Your task to perform on an android device: toggle location history Image 0: 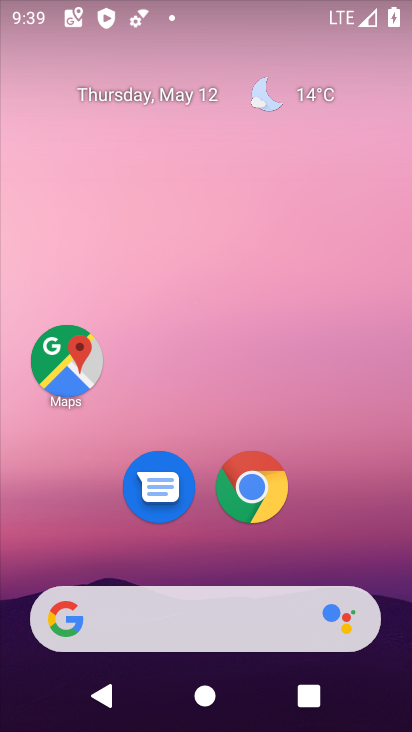
Step 0: drag from (95, 473) to (328, 37)
Your task to perform on an android device: toggle location history Image 1: 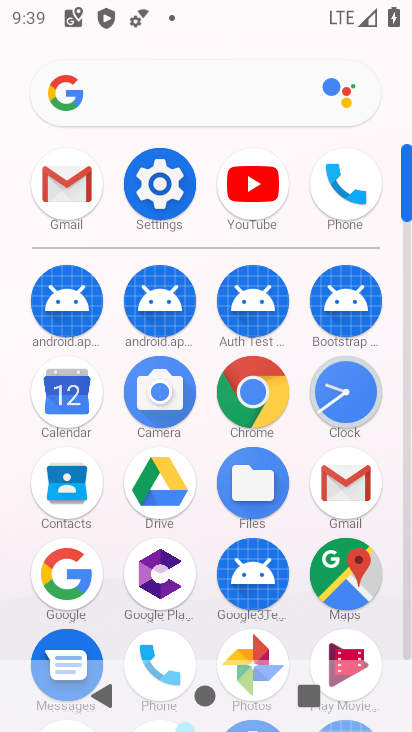
Step 1: click (162, 184)
Your task to perform on an android device: toggle location history Image 2: 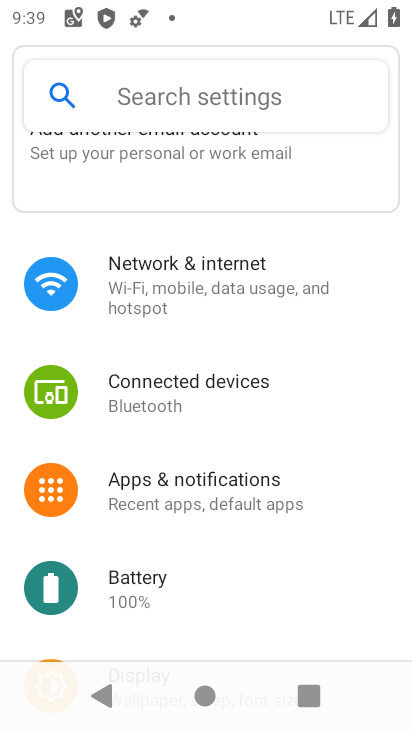
Step 2: drag from (127, 632) to (298, 240)
Your task to perform on an android device: toggle location history Image 3: 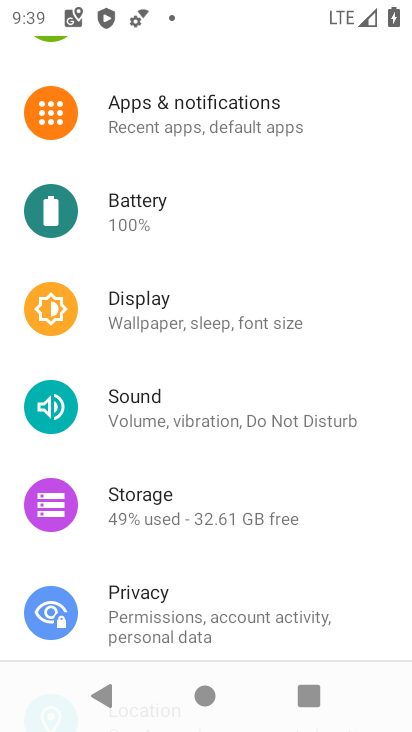
Step 3: drag from (49, 536) to (237, 155)
Your task to perform on an android device: toggle location history Image 4: 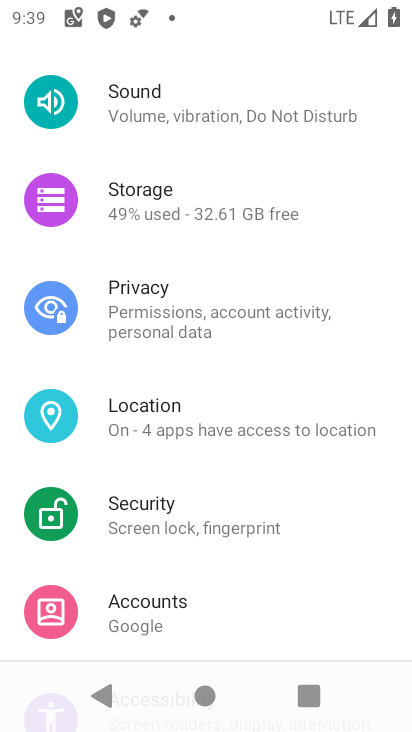
Step 4: click (112, 423)
Your task to perform on an android device: toggle location history Image 5: 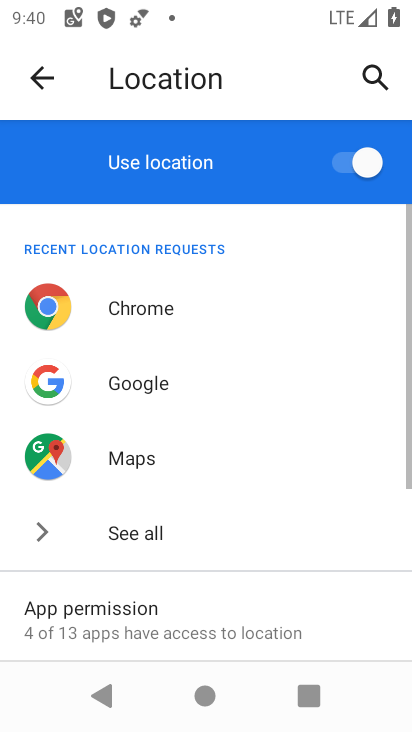
Step 5: drag from (18, 525) to (197, 180)
Your task to perform on an android device: toggle location history Image 6: 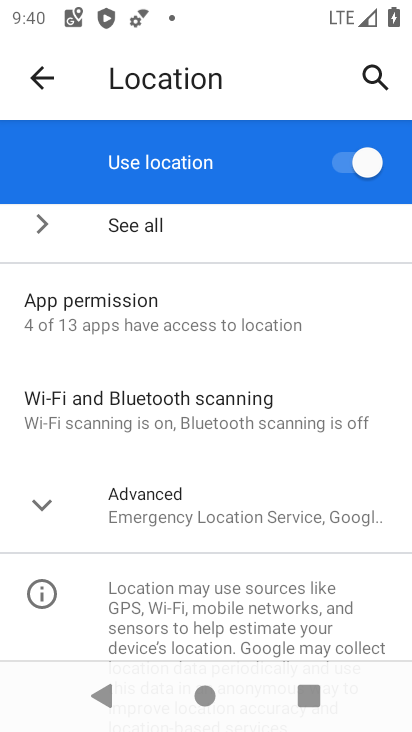
Step 6: click (142, 506)
Your task to perform on an android device: toggle location history Image 7: 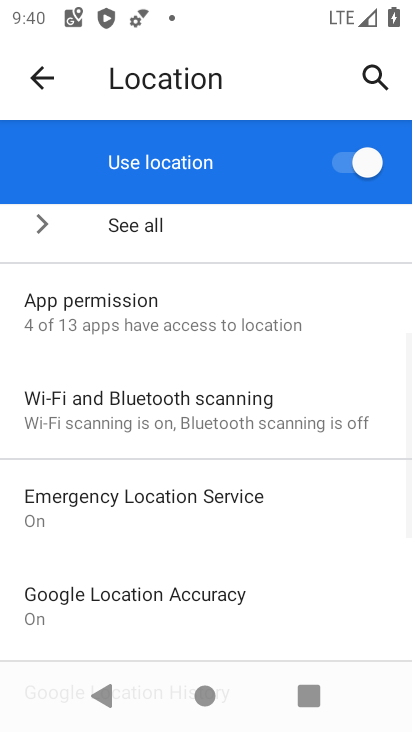
Step 7: drag from (32, 539) to (227, 272)
Your task to perform on an android device: toggle location history Image 8: 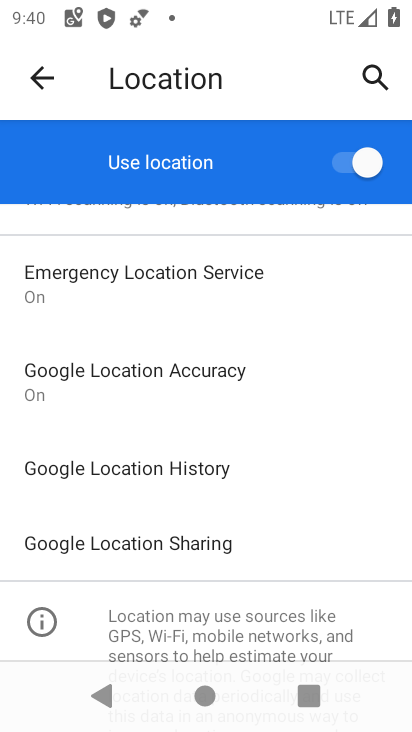
Step 8: click (144, 486)
Your task to perform on an android device: toggle location history Image 9: 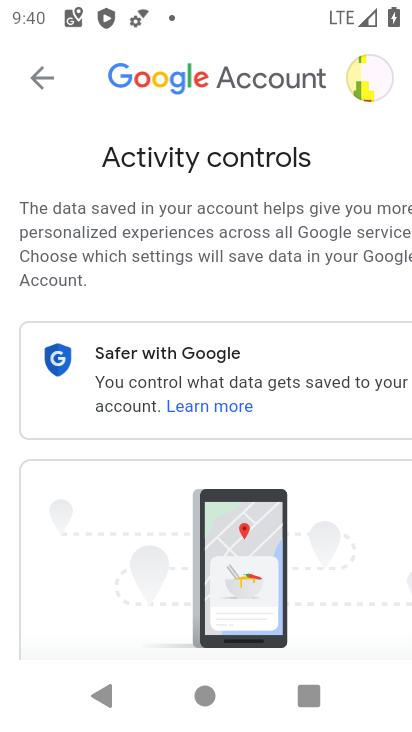
Step 9: drag from (4, 656) to (236, 239)
Your task to perform on an android device: toggle location history Image 10: 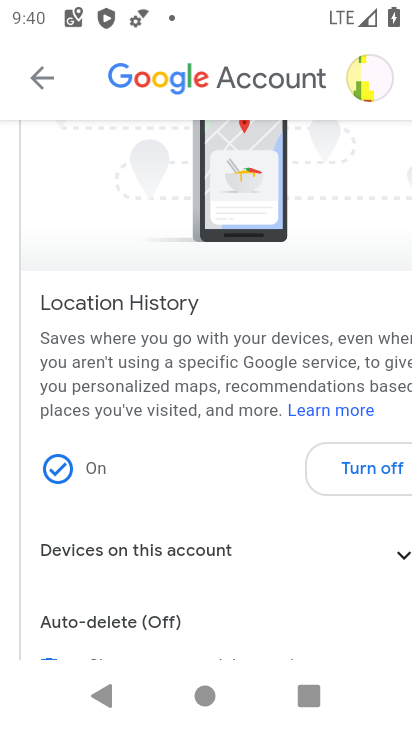
Step 10: click (349, 472)
Your task to perform on an android device: toggle location history Image 11: 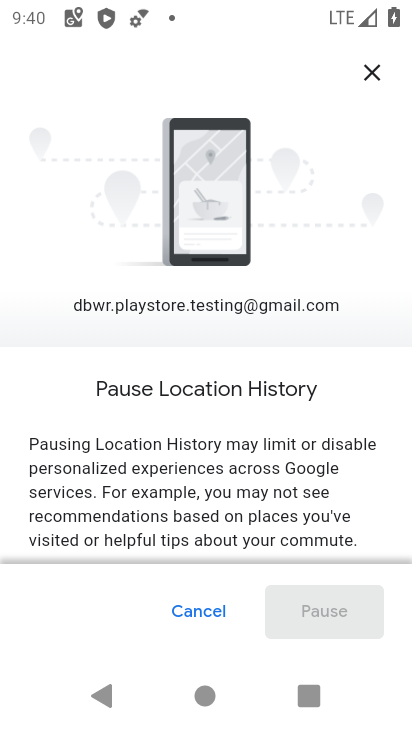
Step 11: drag from (51, 470) to (260, 149)
Your task to perform on an android device: toggle location history Image 12: 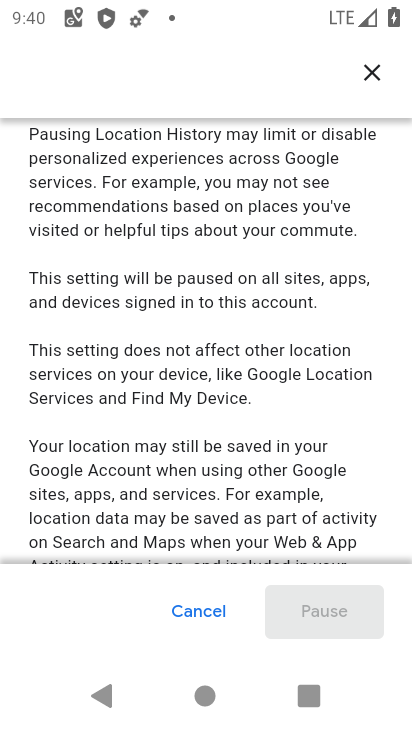
Step 12: drag from (25, 433) to (297, 99)
Your task to perform on an android device: toggle location history Image 13: 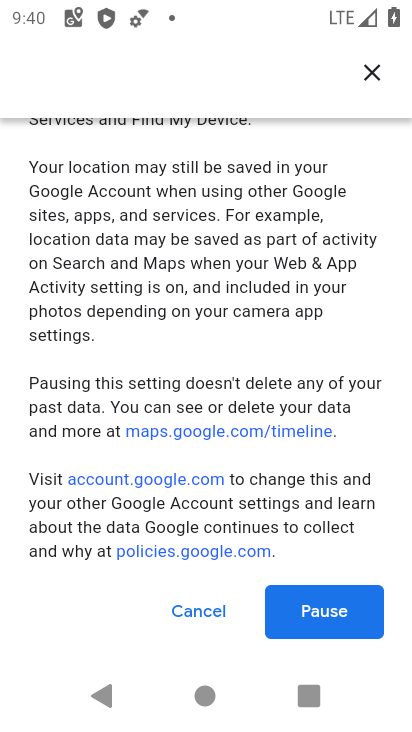
Step 13: click (307, 612)
Your task to perform on an android device: toggle location history Image 14: 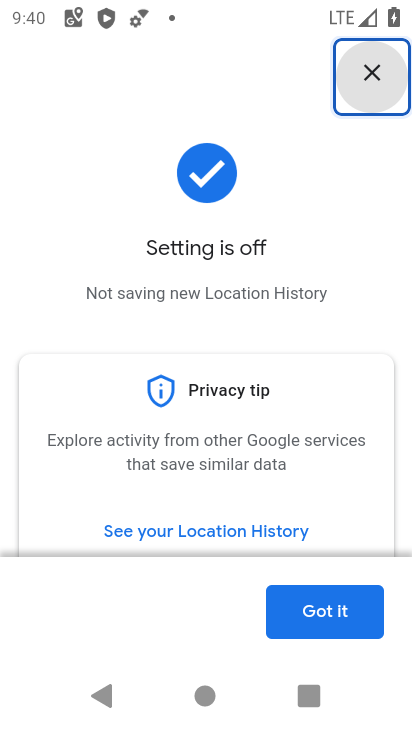
Step 14: click (368, 603)
Your task to perform on an android device: toggle location history Image 15: 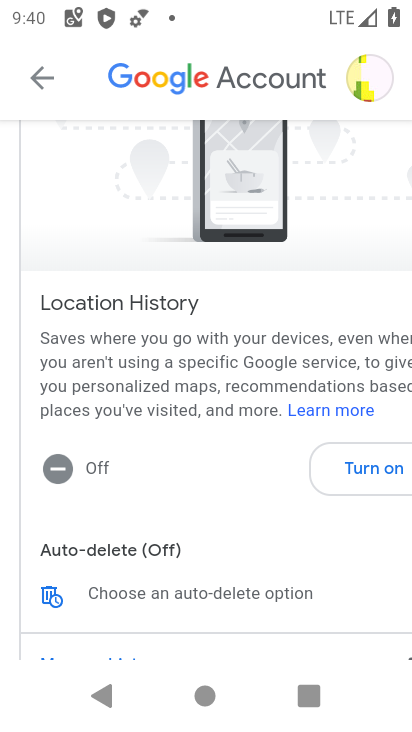
Step 15: task complete